Your task to perform on an android device: add a label to a message in the gmail app Image 0: 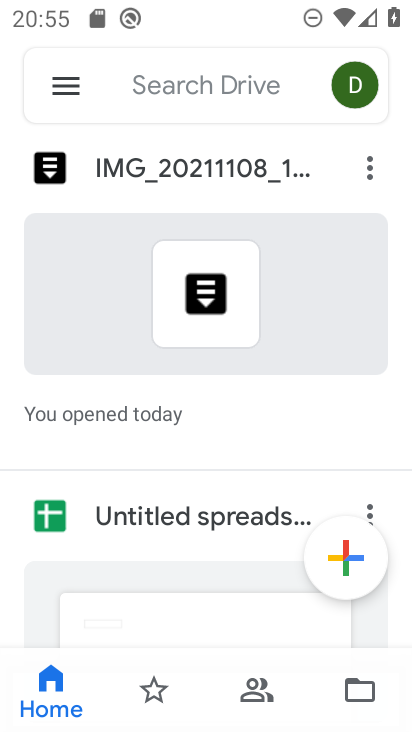
Step 0: press home button
Your task to perform on an android device: add a label to a message in the gmail app Image 1: 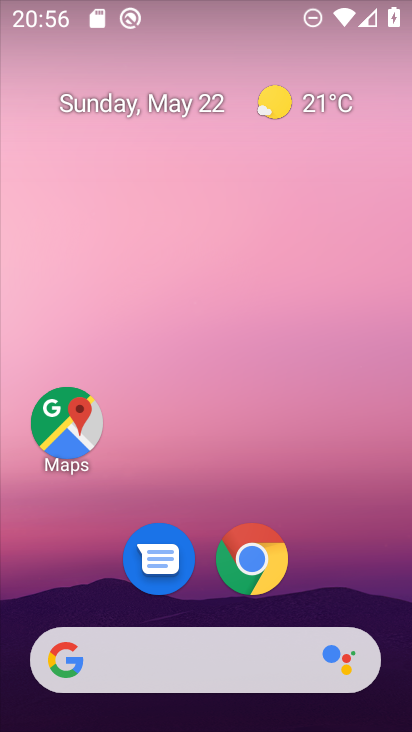
Step 1: drag from (239, 700) to (79, 123)
Your task to perform on an android device: add a label to a message in the gmail app Image 2: 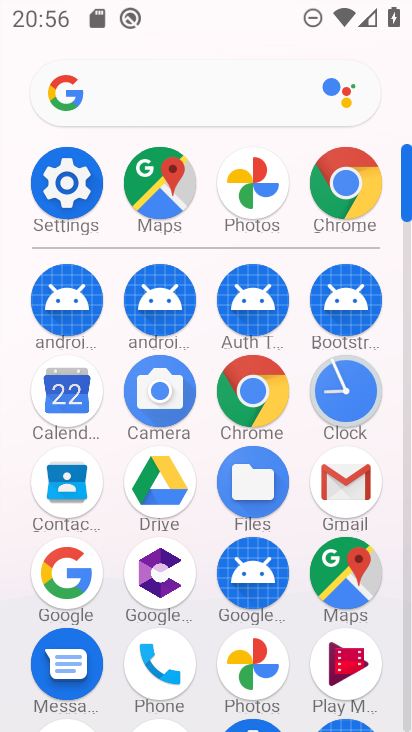
Step 2: click (339, 499)
Your task to perform on an android device: add a label to a message in the gmail app Image 3: 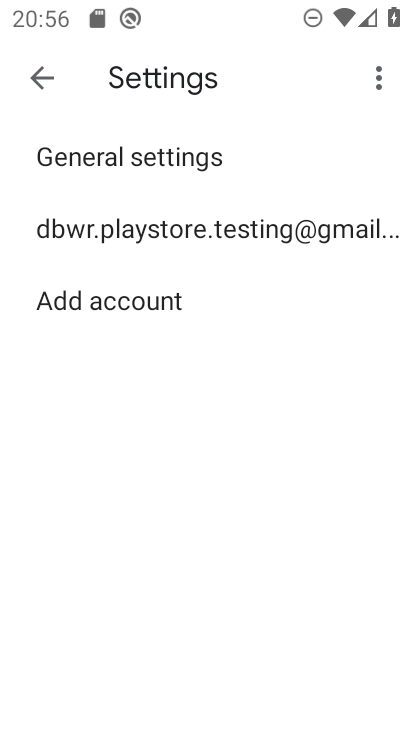
Step 3: click (136, 217)
Your task to perform on an android device: add a label to a message in the gmail app Image 4: 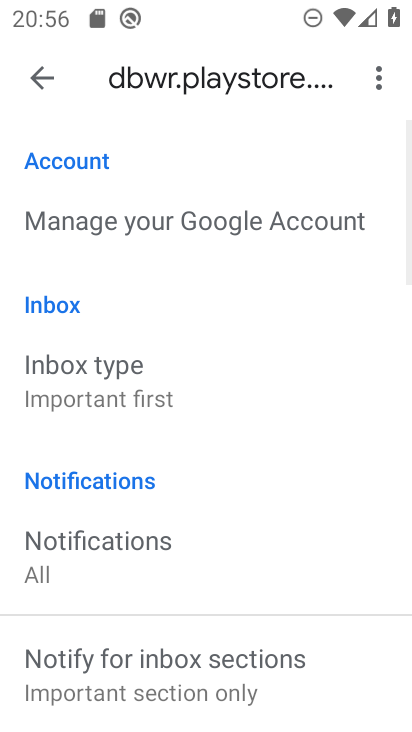
Step 4: drag from (146, 617) to (57, 312)
Your task to perform on an android device: add a label to a message in the gmail app Image 5: 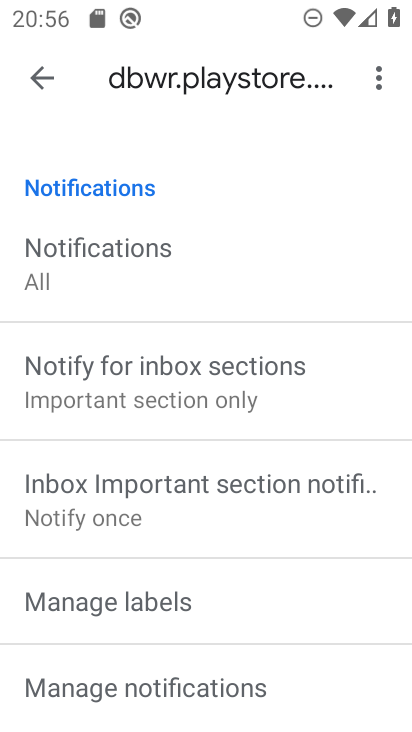
Step 5: click (189, 601)
Your task to perform on an android device: add a label to a message in the gmail app Image 6: 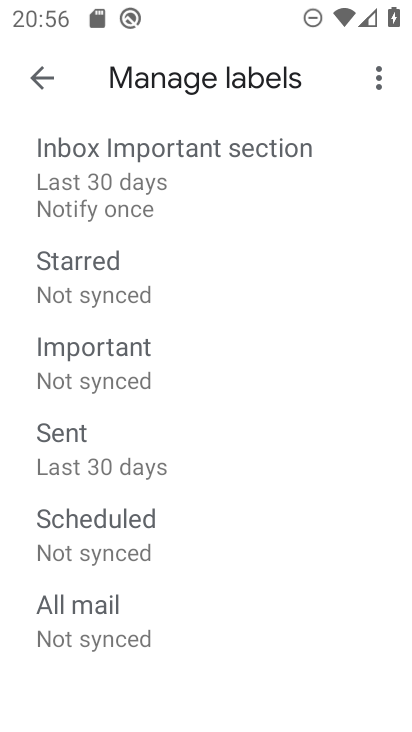
Step 6: click (120, 285)
Your task to perform on an android device: add a label to a message in the gmail app Image 7: 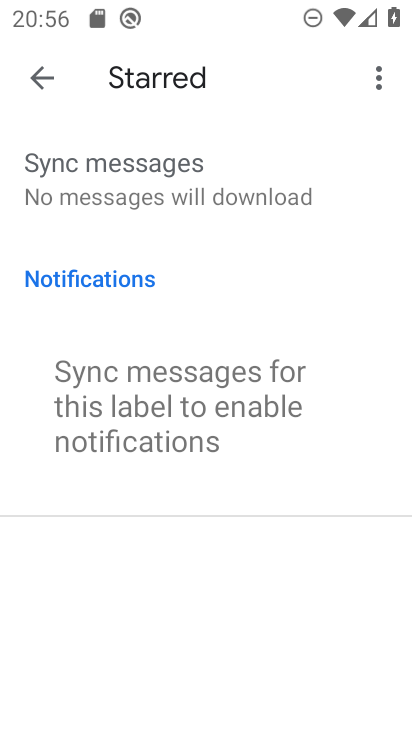
Step 7: task complete